Your task to perform on an android device: Open Wikipedia Image 0: 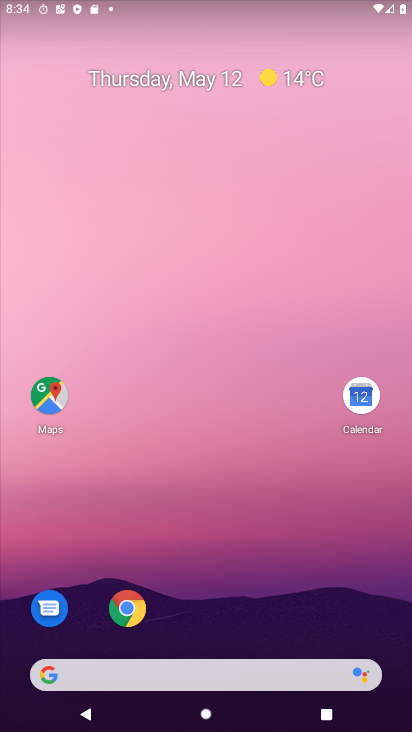
Step 0: click (131, 616)
Your task to perform on an android device: Open Wikipedia Image 1: 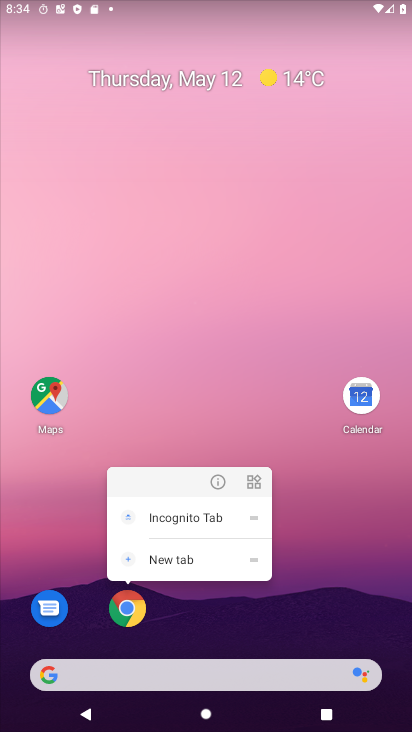
Step 1: click (142, 616)
Your task to perform on an android device: Open Wikipedia Image 2: 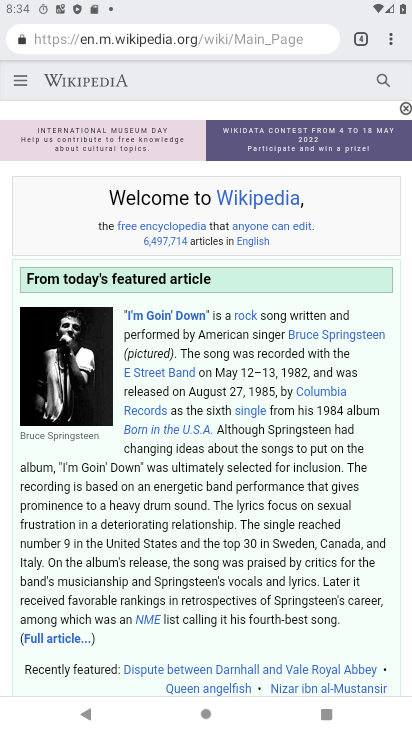
Step 2: click (174, 38)
Your task to perform on an android device: Open Wikipedia Image 3: 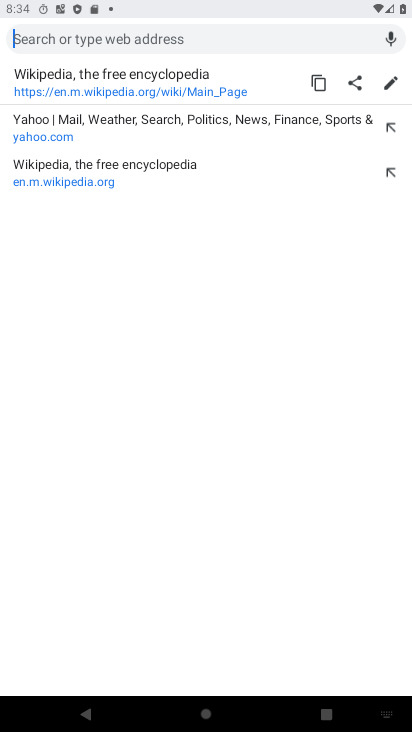
Step 3: press back button
Your task to perform on an android device: Open Wikipedia Image 4: 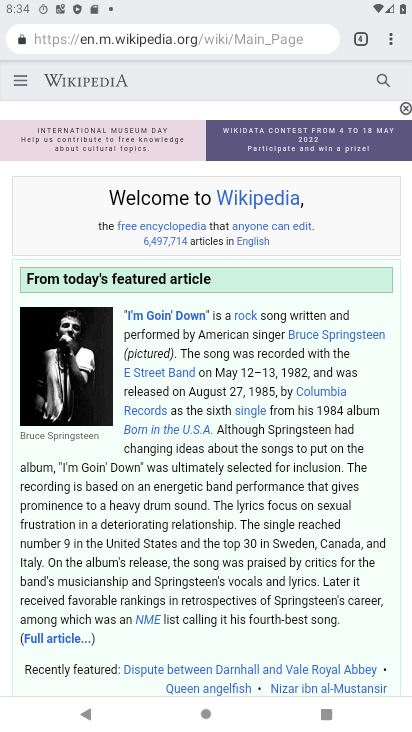
Step 4: click (358, 39)
Your task to perform on an android device: Open Wikipedia Image 5: 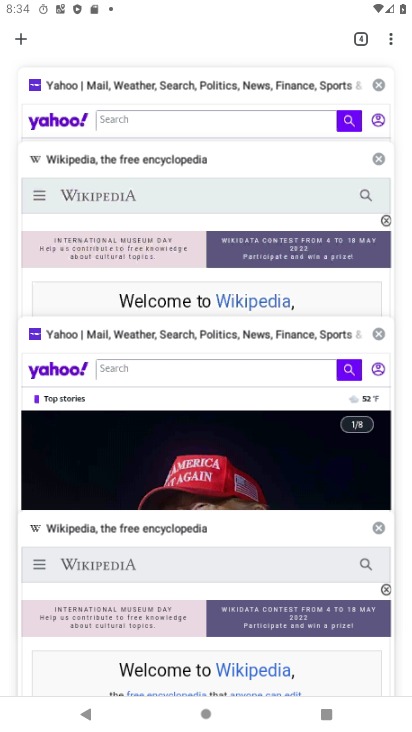
Step 5: click (21, 25)
Your task to perform on an android device: Open Wikipedia Image 6: 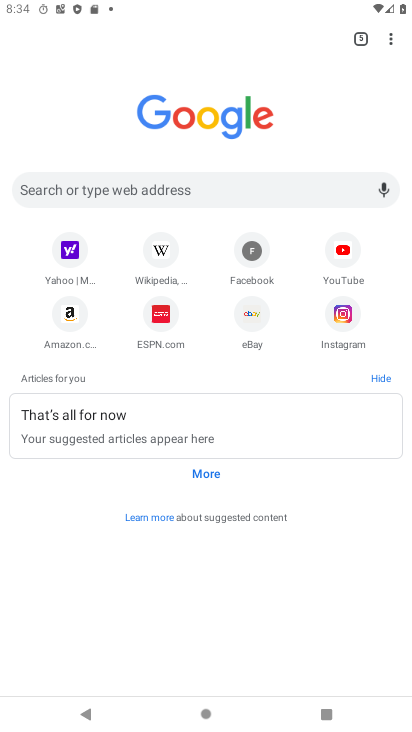
Step 6: click (162, 253)
Your task to perform on an android device: Open Wikipedia Image 7: 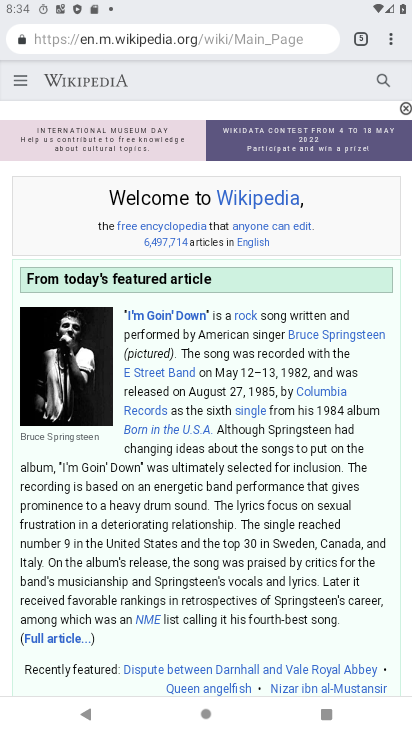
Step 7: task complete